Your task to perform on an android device: delete a single message in the gmail app Image 0: 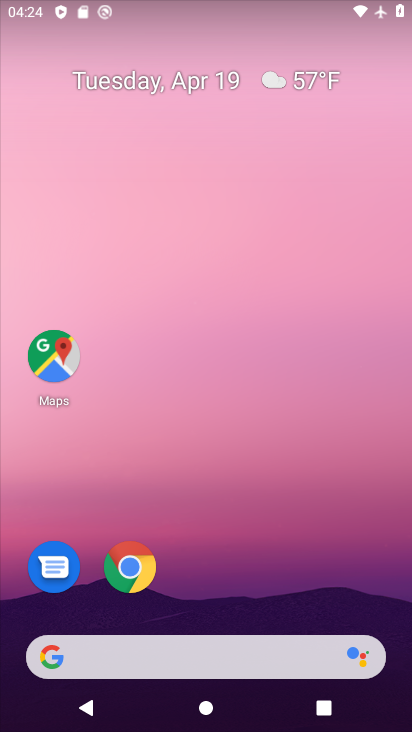
Step 0: drag from (371, 594) to (364, 190)
Your task to perform on an android device: delete a single message in the gmail app Image 1: 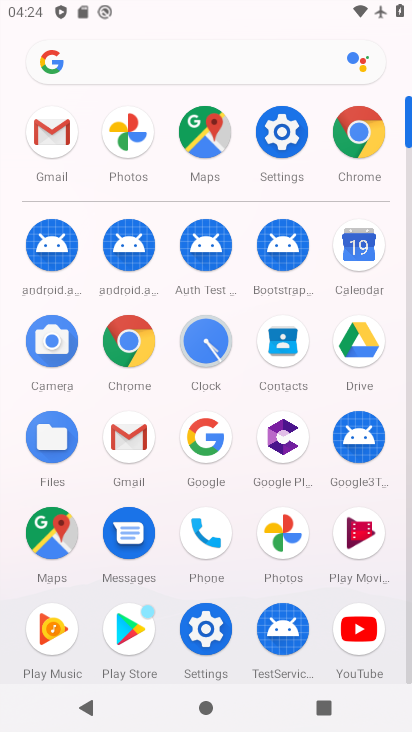
Step 1: click (139, 445)
Your task to perform on an android device: delete a single message in the gmail app Image 2: 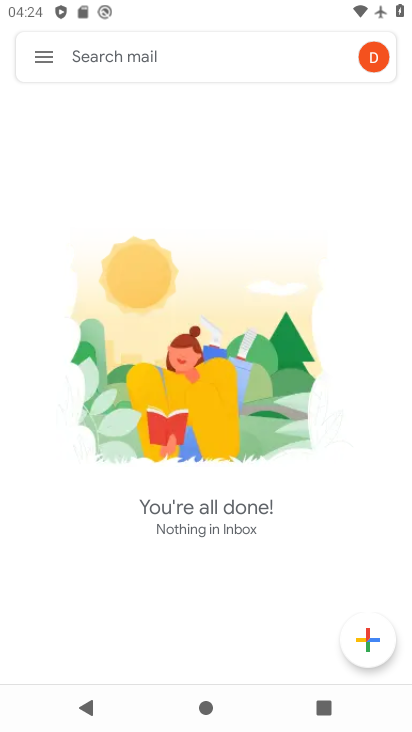
Step 2: click (38, 57)
Your task to perform on an android device: delete a single message in the gmail app Image 3: 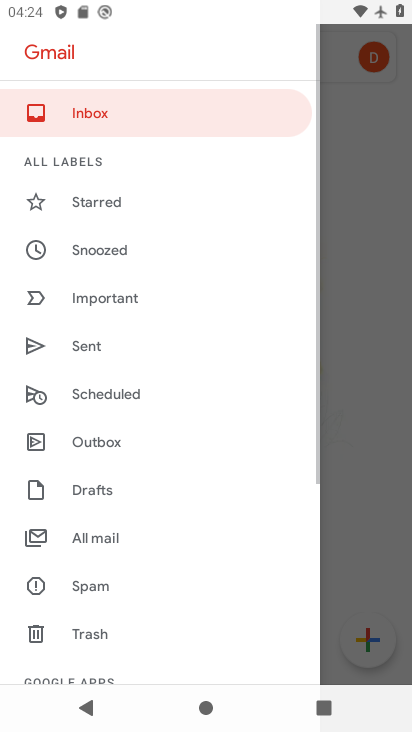
Step 3: drag from (206, 560) to (213, 459)
Your task to perform on an android device: delete a single message in the gmail app Image 4: 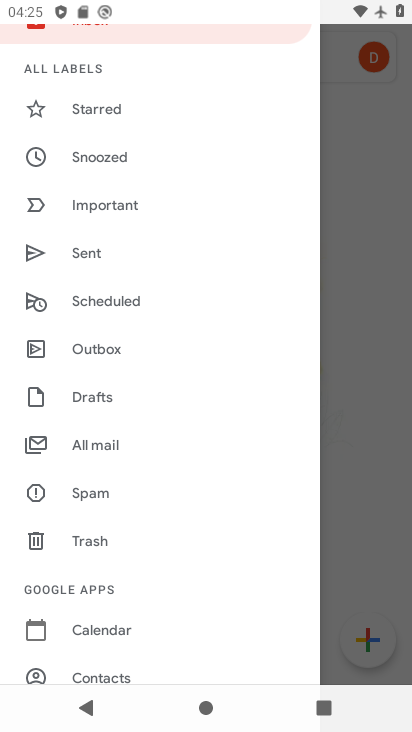
Step 4: drag from (215, 609) to (219, 456)
Your task to perform on an android device: delete a single message in the gmail app Image 5: 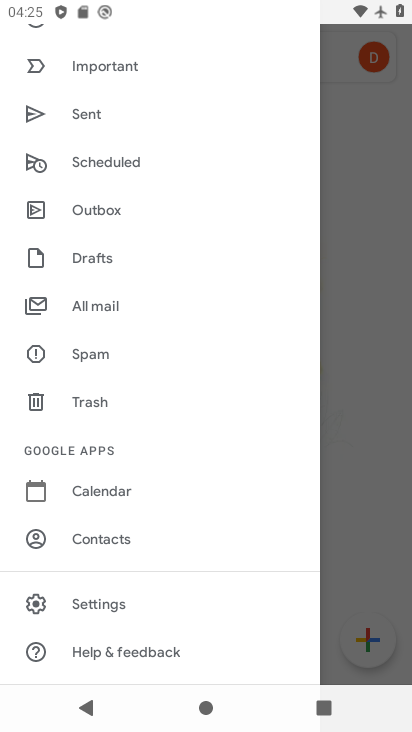
Step 5: drag from (224, 613) to (234, 491)
Your task to perform on an android device: delete a single message in the gmail app Image 6: 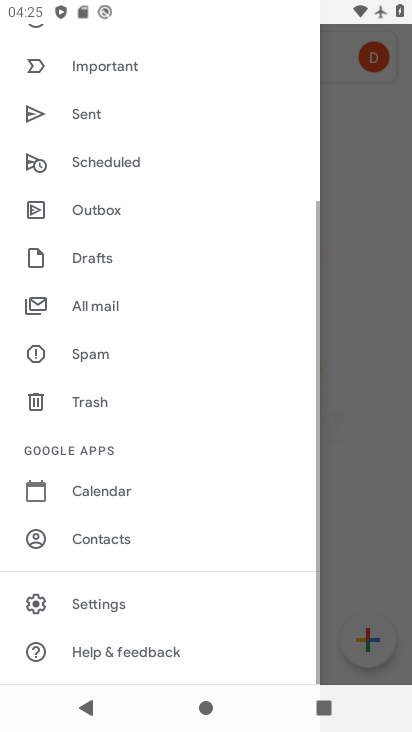
Step 6: drag from (246, 384) to (243, 502)
Your task to perform on an android device: delete a single message in the gmail app Image 7: 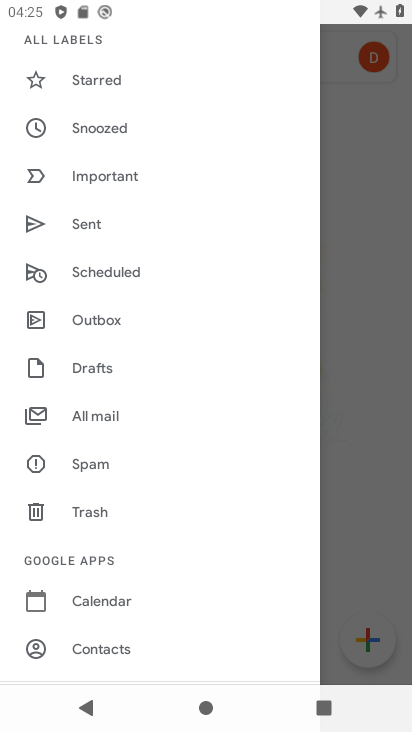
Step 7: drag from (244, 364) to (230, 482)
Your task to perform on an android device: delete a single message in the gmail app Image 8: 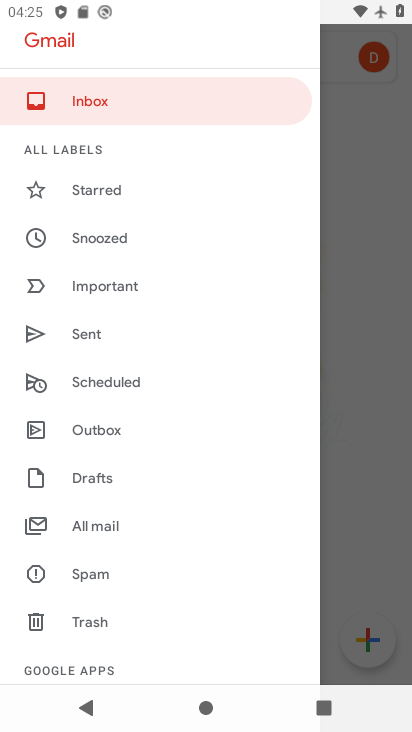
Step 8: drag from (245, 318) to (243, 462)
Your task to perform on an android device: delete a single message in the gmail app Image 9: 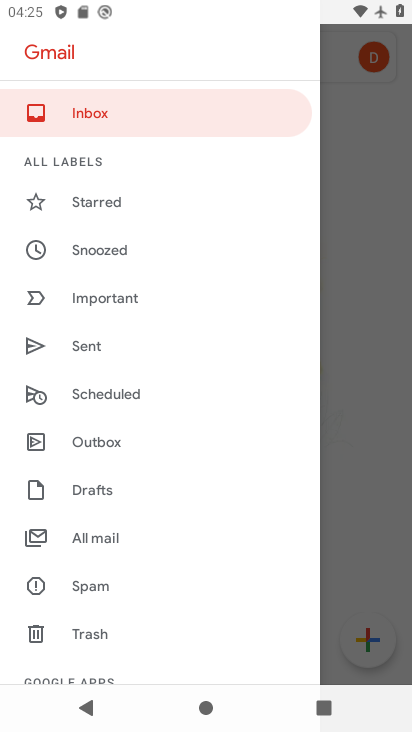
Step 9: click (115, 116)
Your task to perform on an android device: delete a single message in the gmail app Image 10: 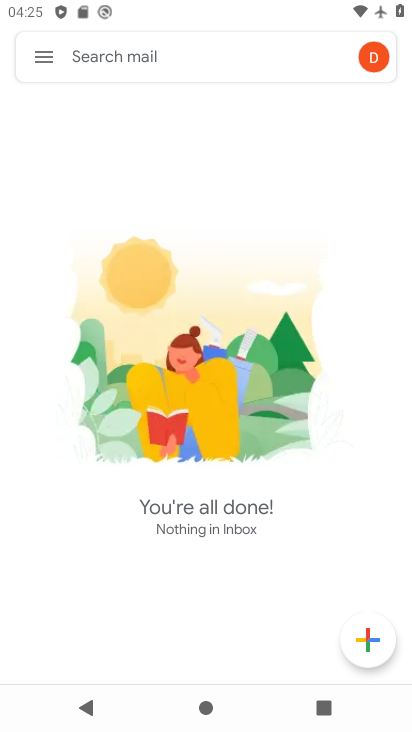
Step 10: task complete